Your task to perform on an android device: Go to settings Image 0: 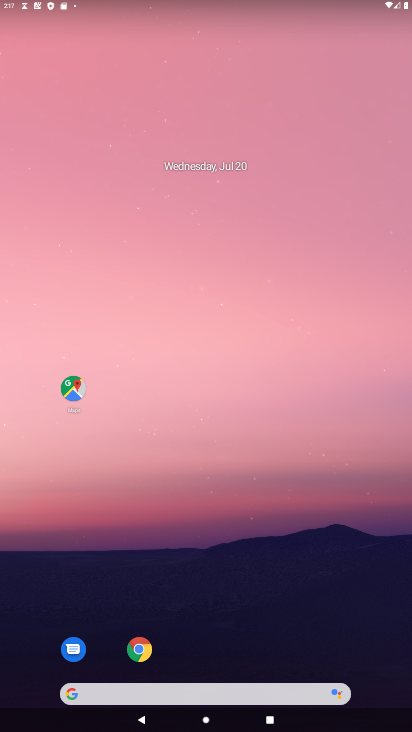
Step 0: drag from (239, 606) to (284, 98)
Your task to perform on an android device: Go to settings Image 1: 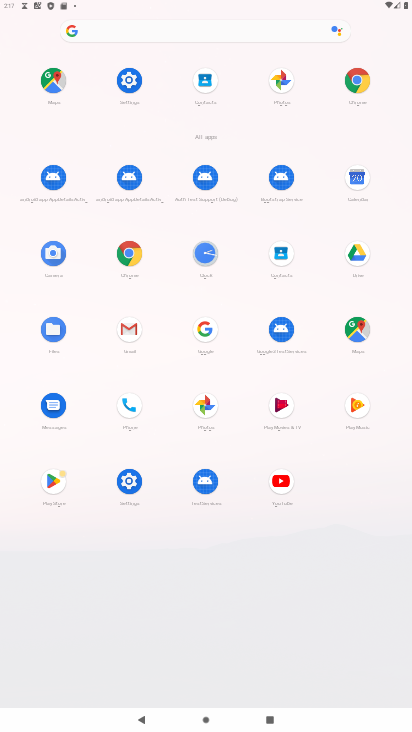
Step 1: click (123, 480)
Your task to perform on an android device: Go to settings Image 2: 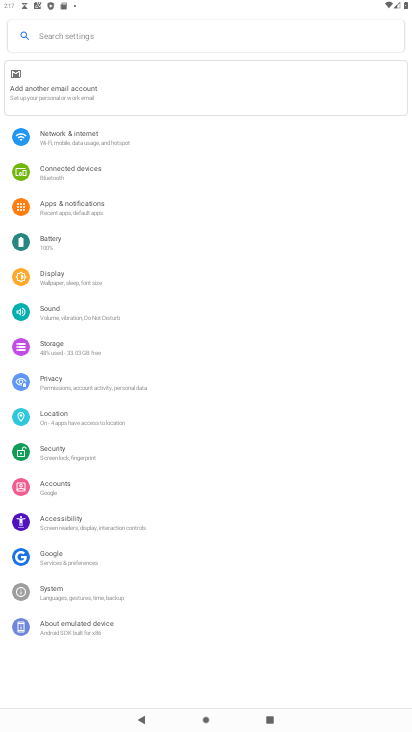
Step 2: task complete